Your task to perform on an android device: Go to Maps Image 0: 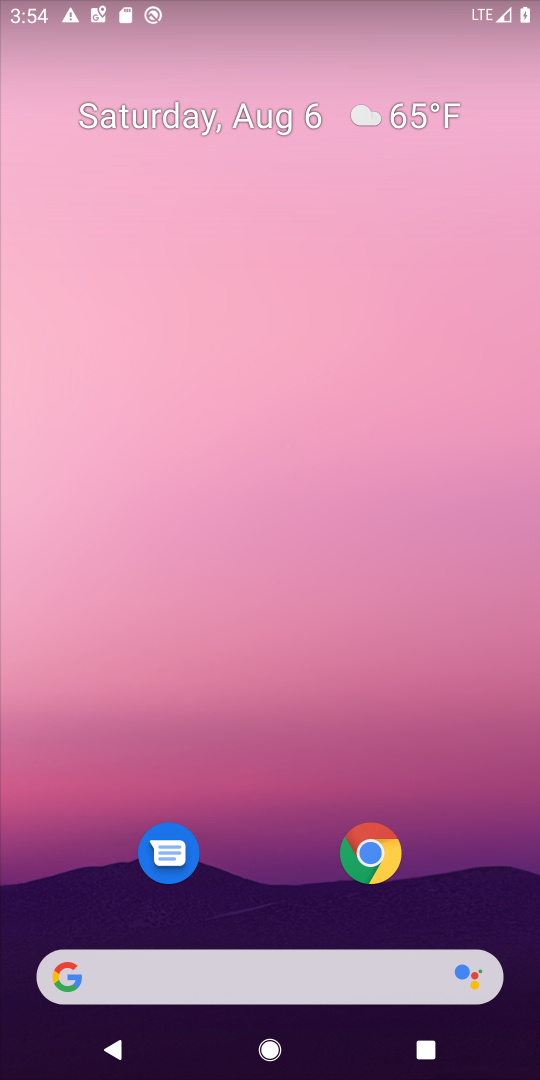
Step 0: drag from (261, 857) to (256, 125)
Your task to perform on an android device: Go to Maps Image 1: 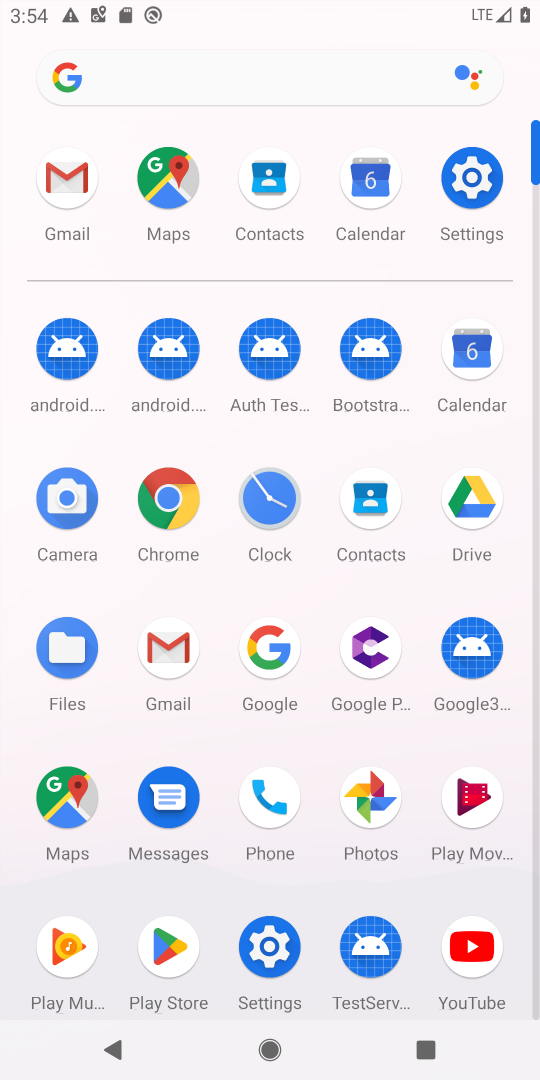
Step 1: click (178, 172)
Your task to perform on an android device: Go to Maps Image 2: 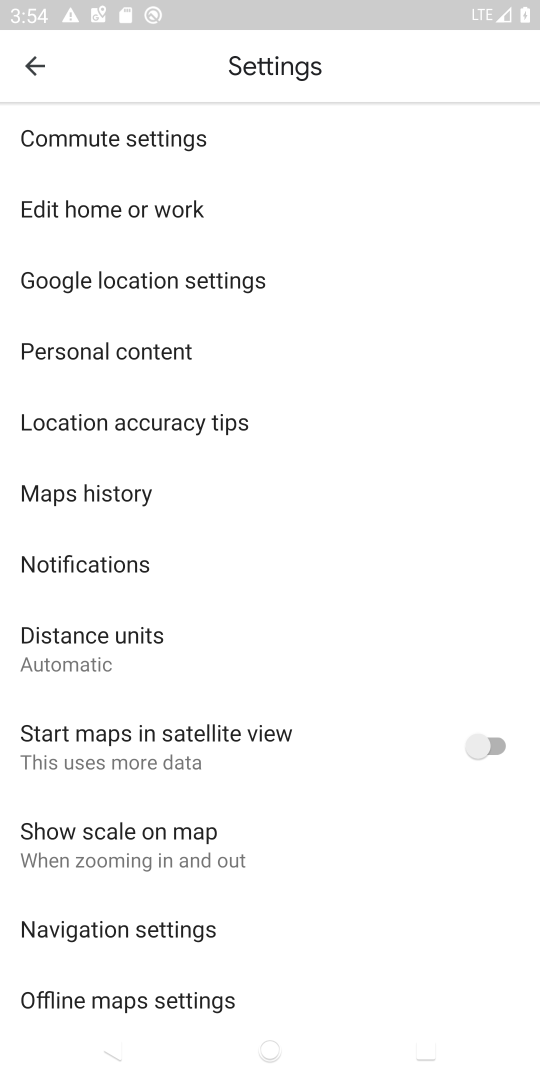
Step 2: task complete